Your task to perform on an android device: Show me productivity apps on the Play Store Image 0: 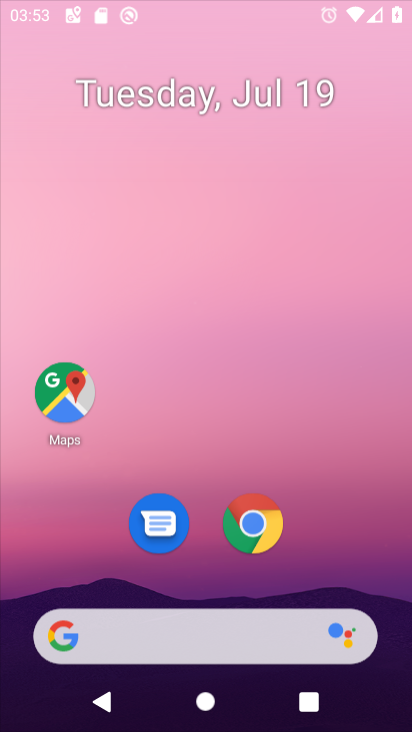
Step 0: click (350, 33)
Your task to perform on an android device: Show me productivity apps on the Play Store Image 1: 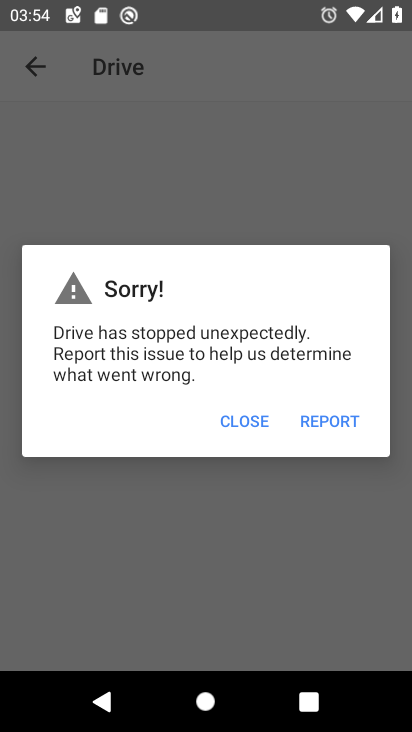
Step 1: press home button
Your task to perform on an android device: Show me productivity apps on the Play Store Image 2: 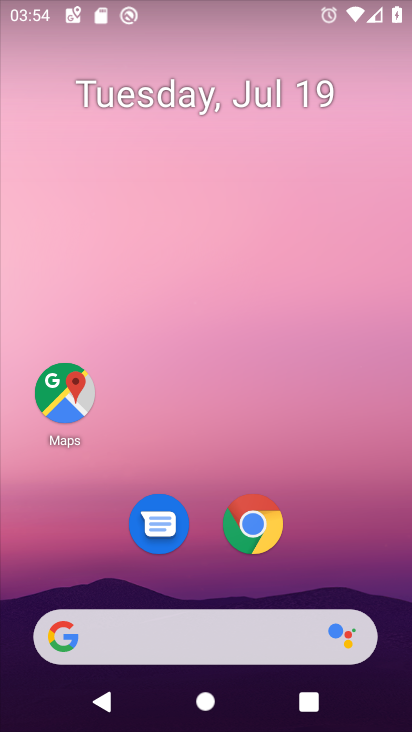
Step 2: drag from (335, 539) to (314, 73)
Your task to perform on an android device: Show me productivity apps on the Play Store Image 3: 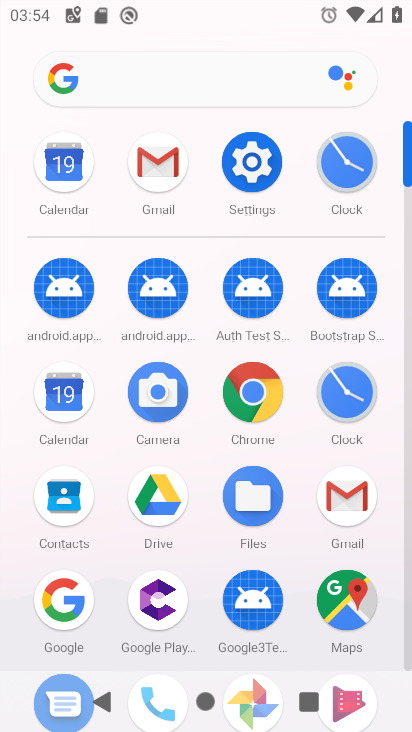
Step 3: drag from (204, 426) to (209, 0)
Your task to perform on an android device: Show me productivity apps on the Play Store Image 4: 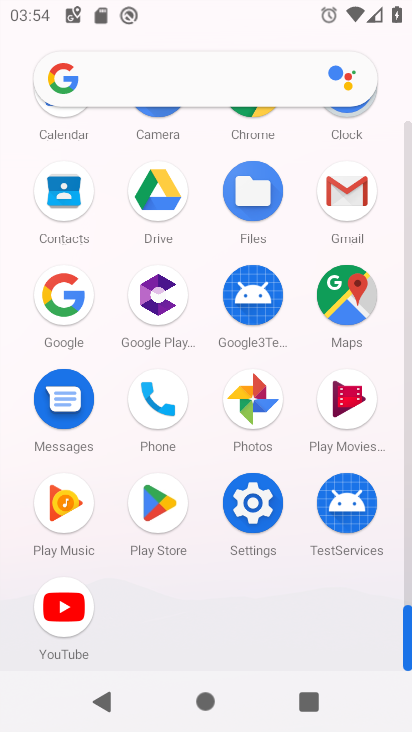
Step 4: click (167, 504)
Your task to perform on an android device: Show me productivity apps on the Play Store Image 5: 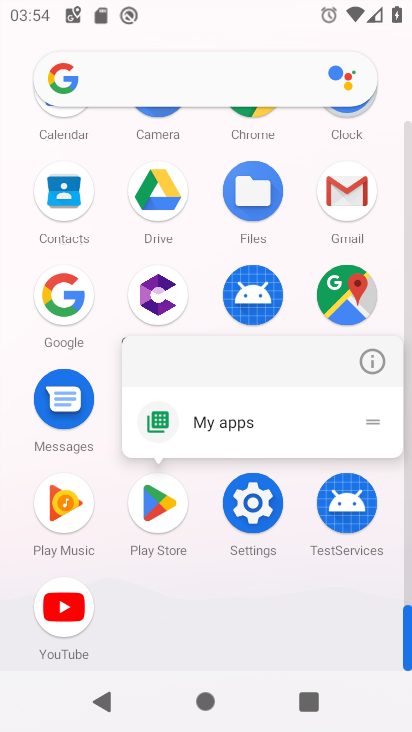
Step 5: click (167, 504)
Your task to perform on an android device: Show me productivity apps on the Play Store Image 6: 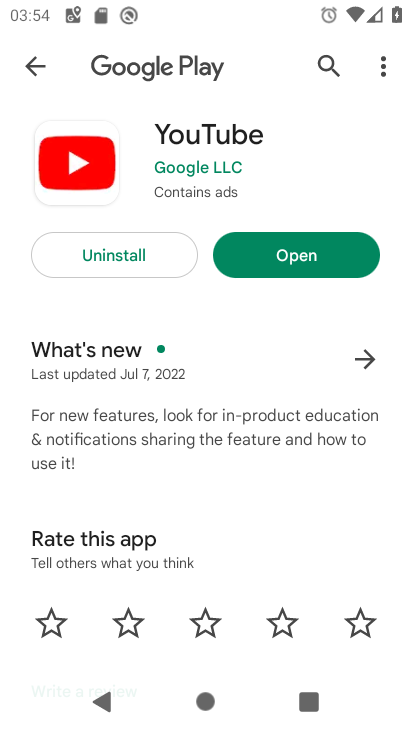
Step 6: click (33, 51)
Your task to perform on an android device: Show me productivity apps on the Play Store Image 7: 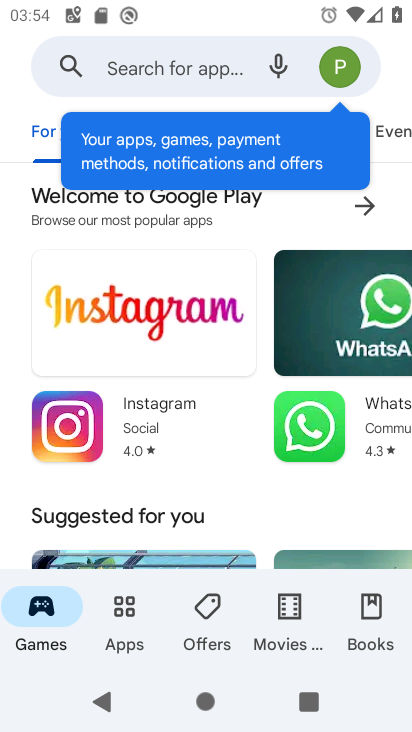
Step 7: click (131, 605)
Your task to perform on an android device: Show me productivity apps on the Play Store Image 8: 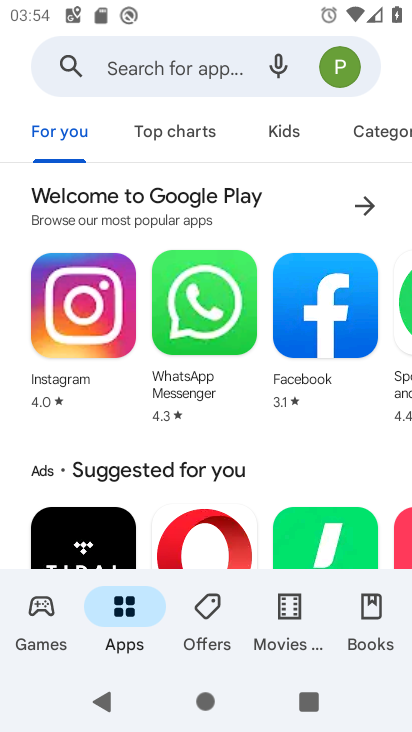
Step 8: click (383, 136)
Your task to perform on an android device: Show me productivity apps on the Play Store Image 9: 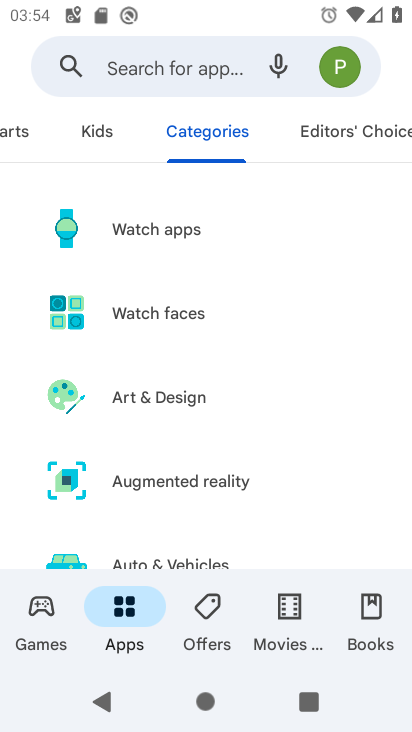
Step 9: drag from (266, 527) to (280, 80)
Your task to perform on an android device: Show me productivity apps on the Play Store Image 10: 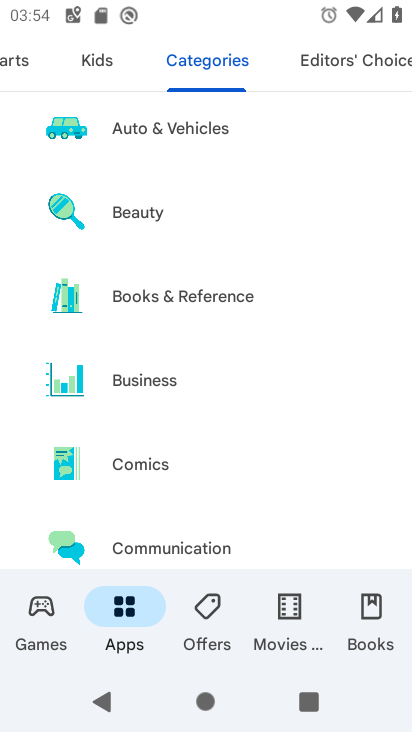
Step 10: drag from (216, 492) to (223, 98)
Your task to perform on an android device: Show me productivity apps on the Play Store Image 11: 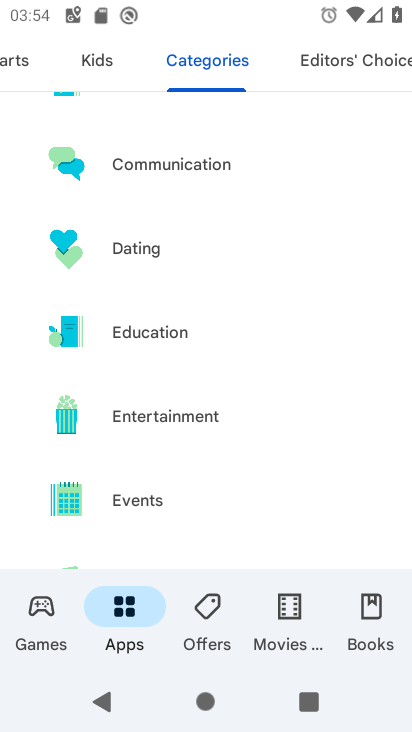
Step 11: drag from (218, 448) to (228, 128)
Your task to perform on an android device: Show me productivity apps on the Play Store Image 12: 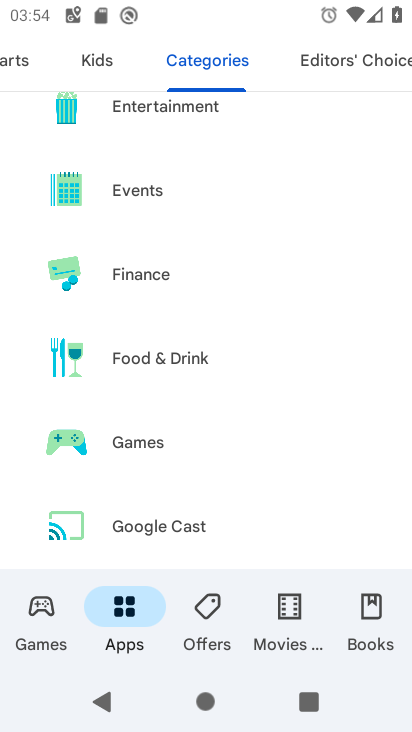
Step 12: drag from (206, 492) to (235, 134)
Your task to perform on an android device: Show me productivity apps on the Play Store Image 13: 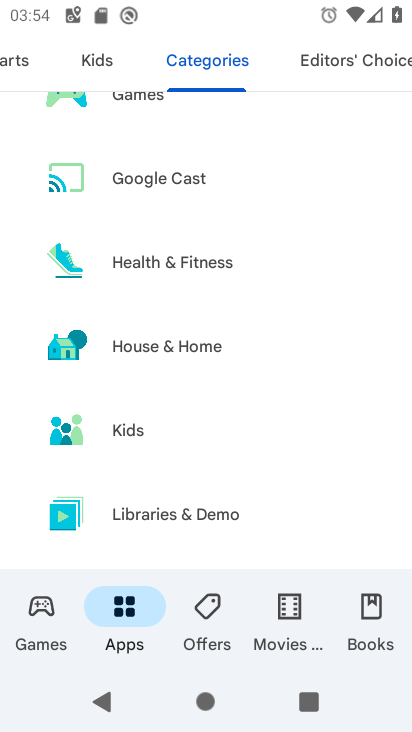
Step 13: drag from (238, 455) to (252, 75)
Your task to perform on an android device: Show me productivity apps on the Play Store Image 14: 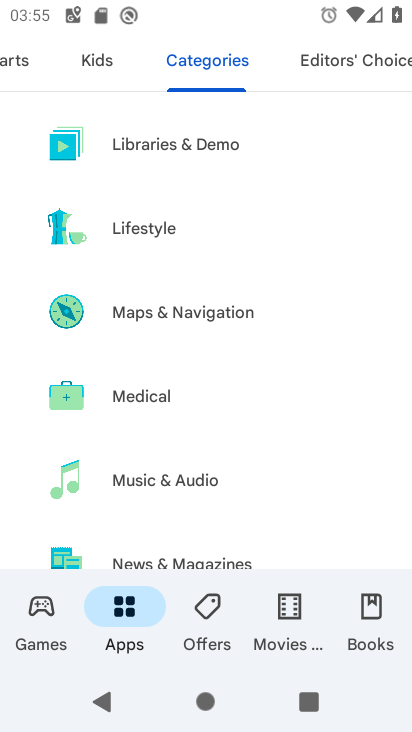
Step 14: drag from (233, 478) to (274, 17)
Your task to perform on an android device: Show me productivity apps on the Play Store Image 15: 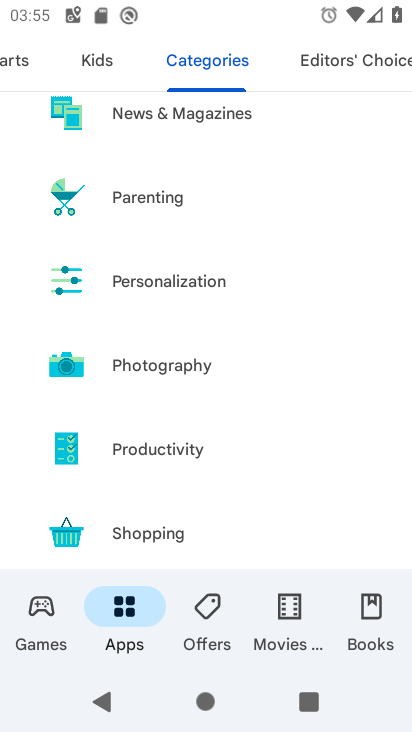
Step 15: click (188, 448)
Your task to perform on an android device: Show me productivity apps on the Play Store Image 16: 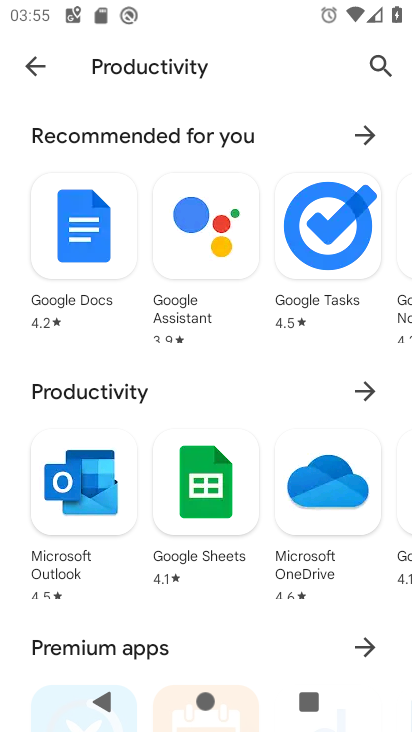
Step 16: click (368, 381)
Your task to perform on an android device: Show me productivity apps on the Play Store Image 17: 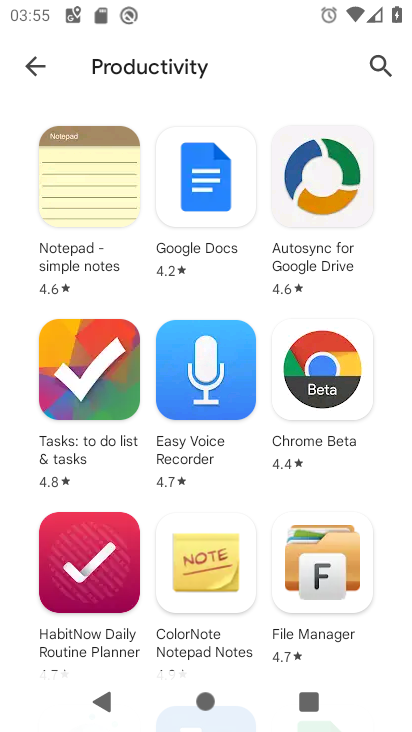
Step 17: task complete